Your task to perform on an android device: What's the weather going to be this weekend? Image 0: 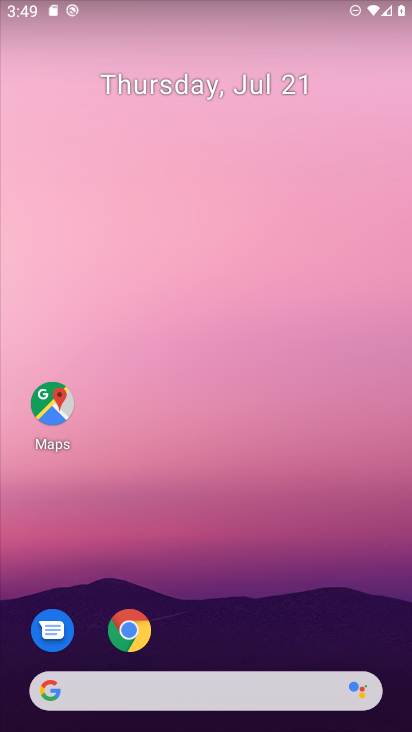
Step 0: click (175, 679)
Your task to perform on an android device: What's the weather going to be this weekend? Image 1: 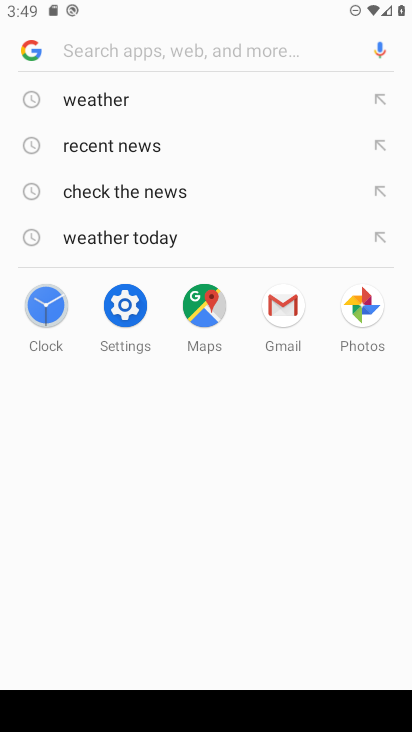
Step 1: click (107, 101)
Your task to perform on an android device: What's the weather going to be this weekend? Image 2: 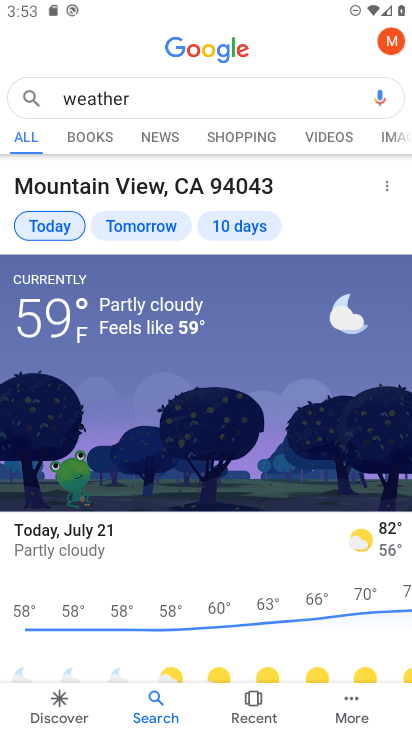
Step 2: click (228, 213)
Your task to perform on an android device: What's the weather going to be this weekend? Image 3: 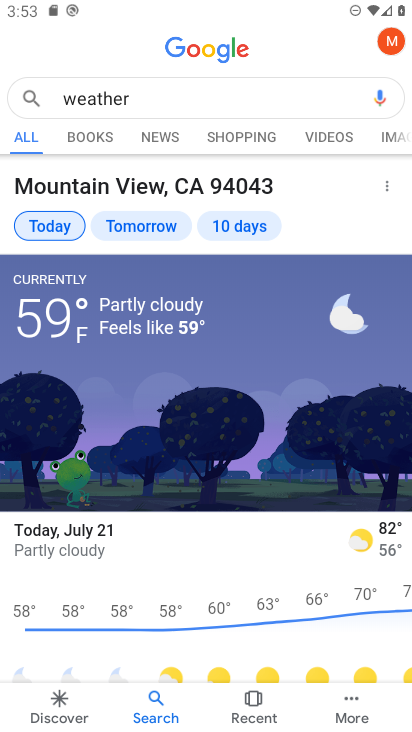
Step 3: click (237, 232)
Your task to perform on an android device: What's the weather going to be this weekend? Image 4: 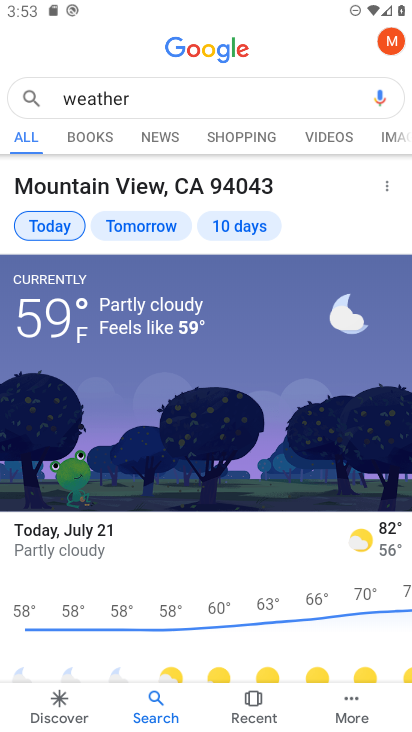
Step 4: task complete